Your task to perform on an android device: uninstall "Yahoo Mail" Image 0: 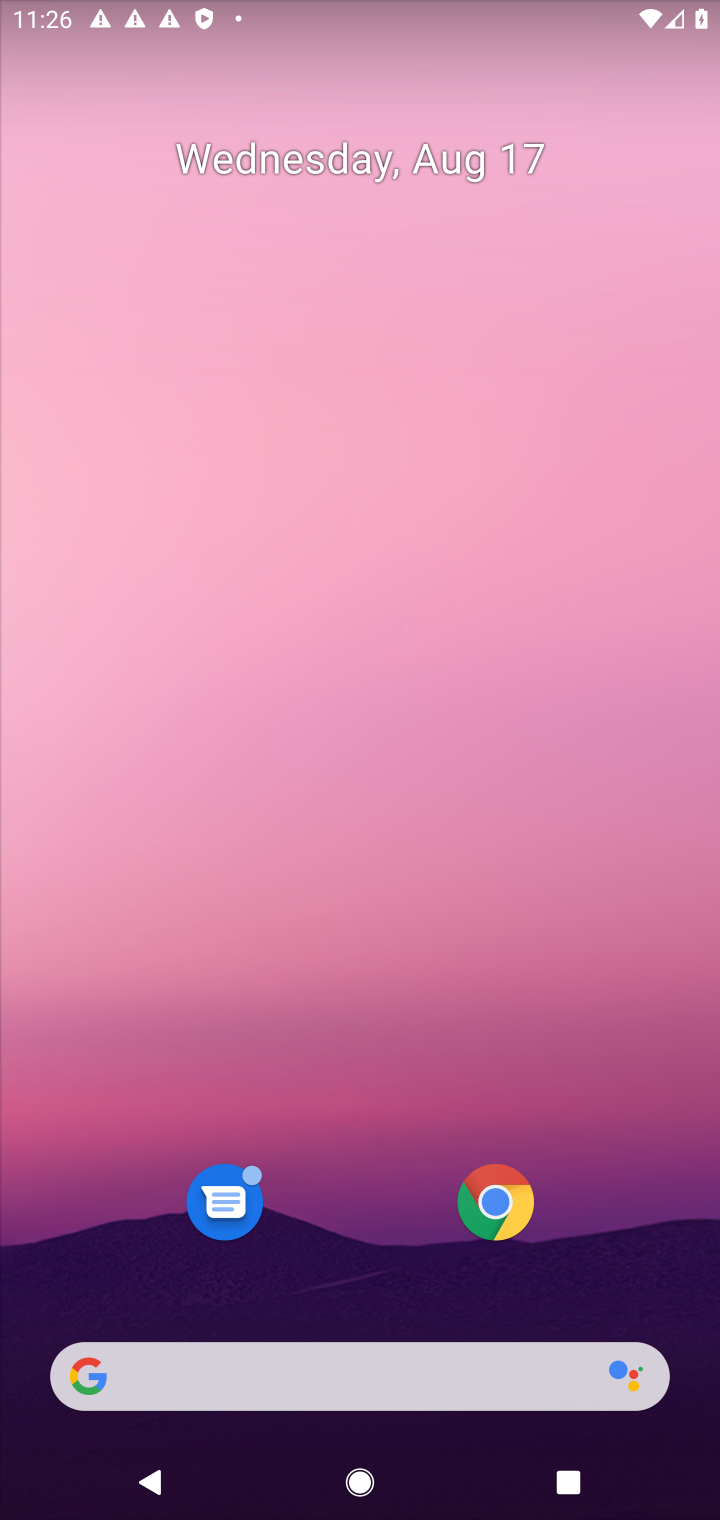
Step 0: drag from (387, 1176) to (321, 391)
Your task to perform on an android device: uninstall "Yahoo Mail" Image 1: 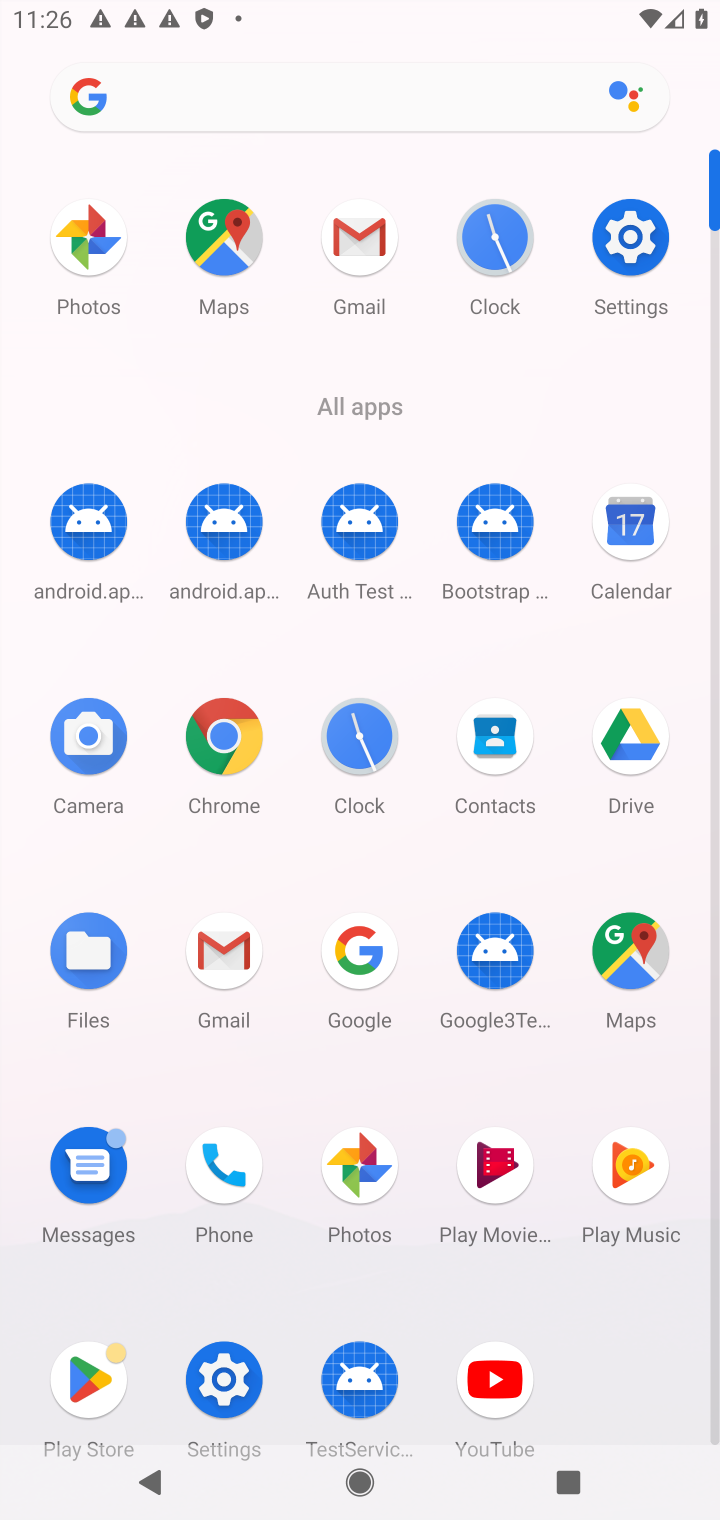
Step 1: click (75, 1353)
Your task to perform on an android device: uninstall "Yahoo Mail" Image 2: 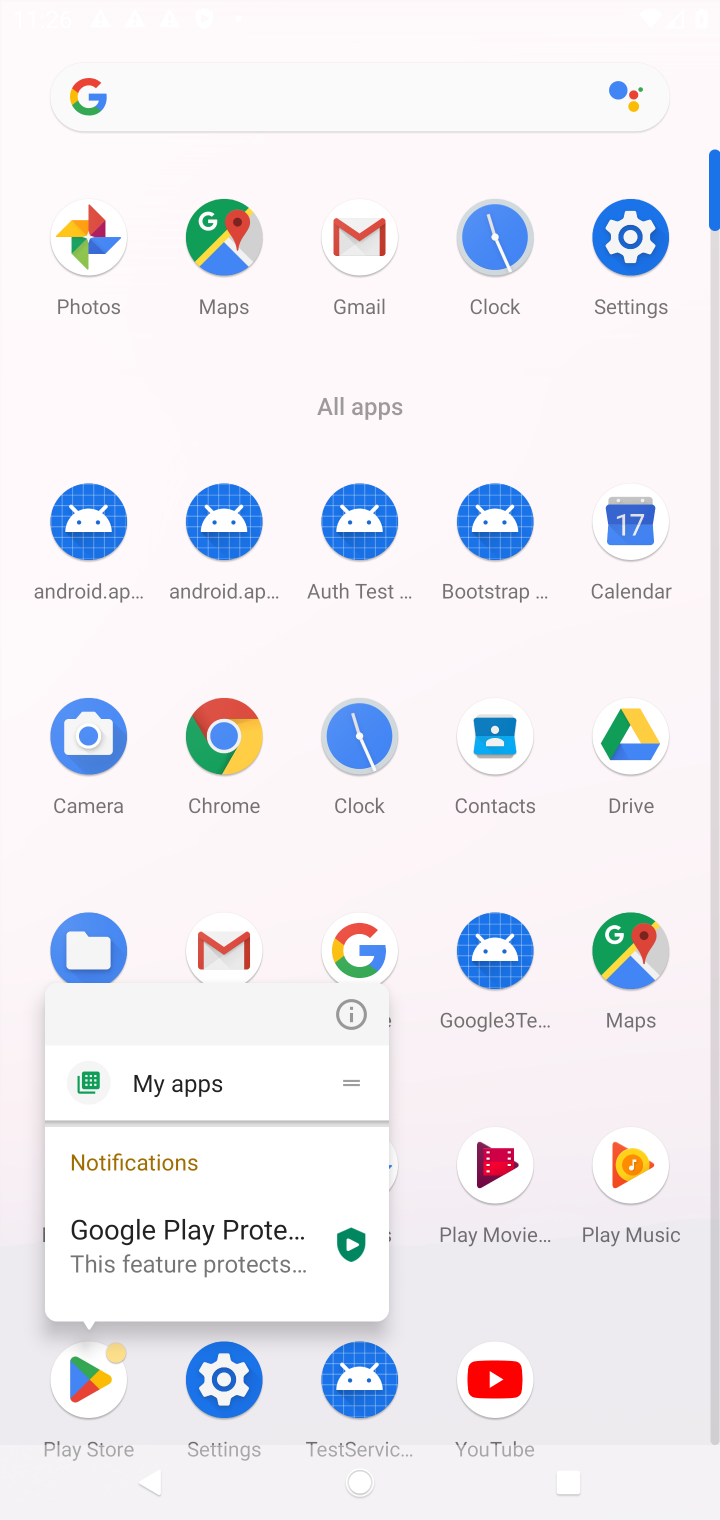
Step 2: click (79, 1394)
Your task to perform on an android device: uninstall "Yahoo Mail" Image 3: 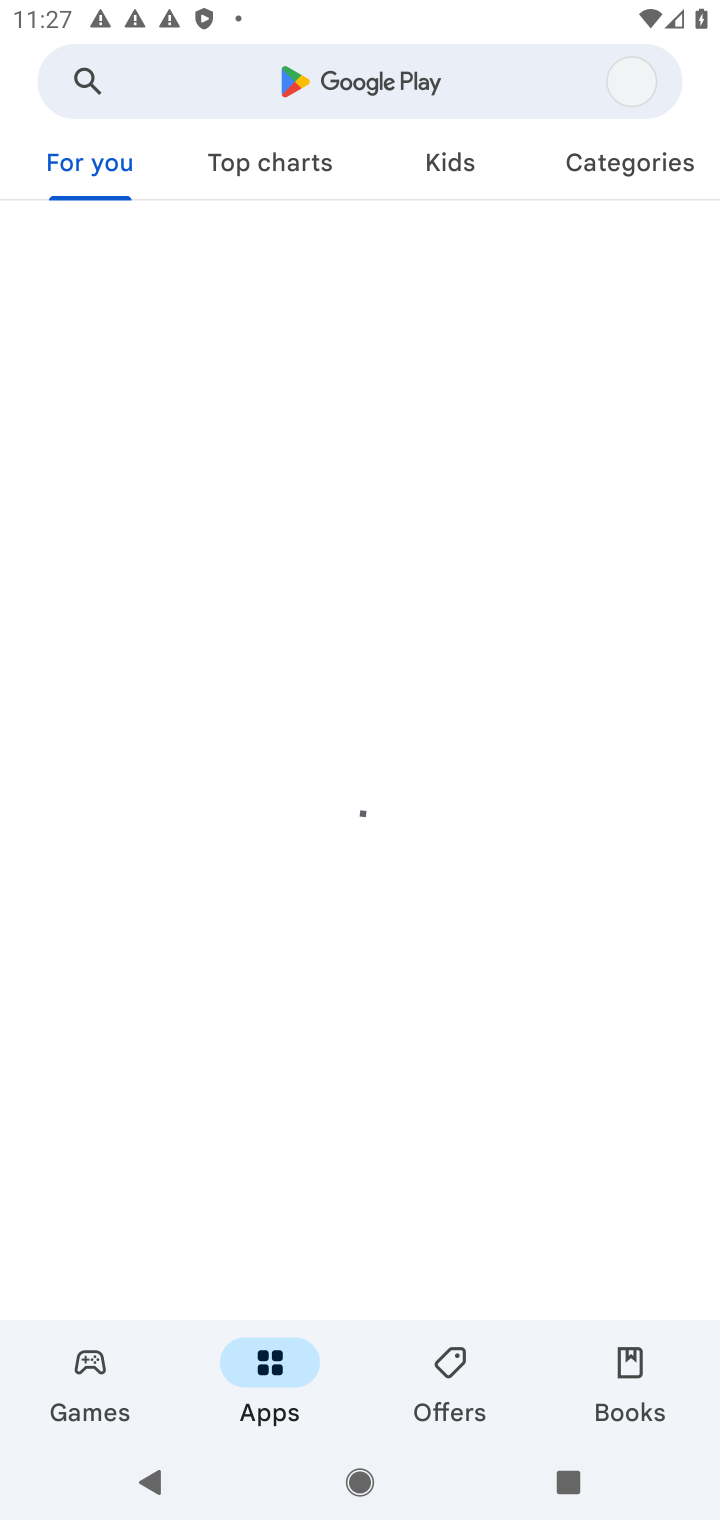
Step 3: click (490, 91)
Your task to perform on an android device: uninstall "Yahoo Mail" Image 4: 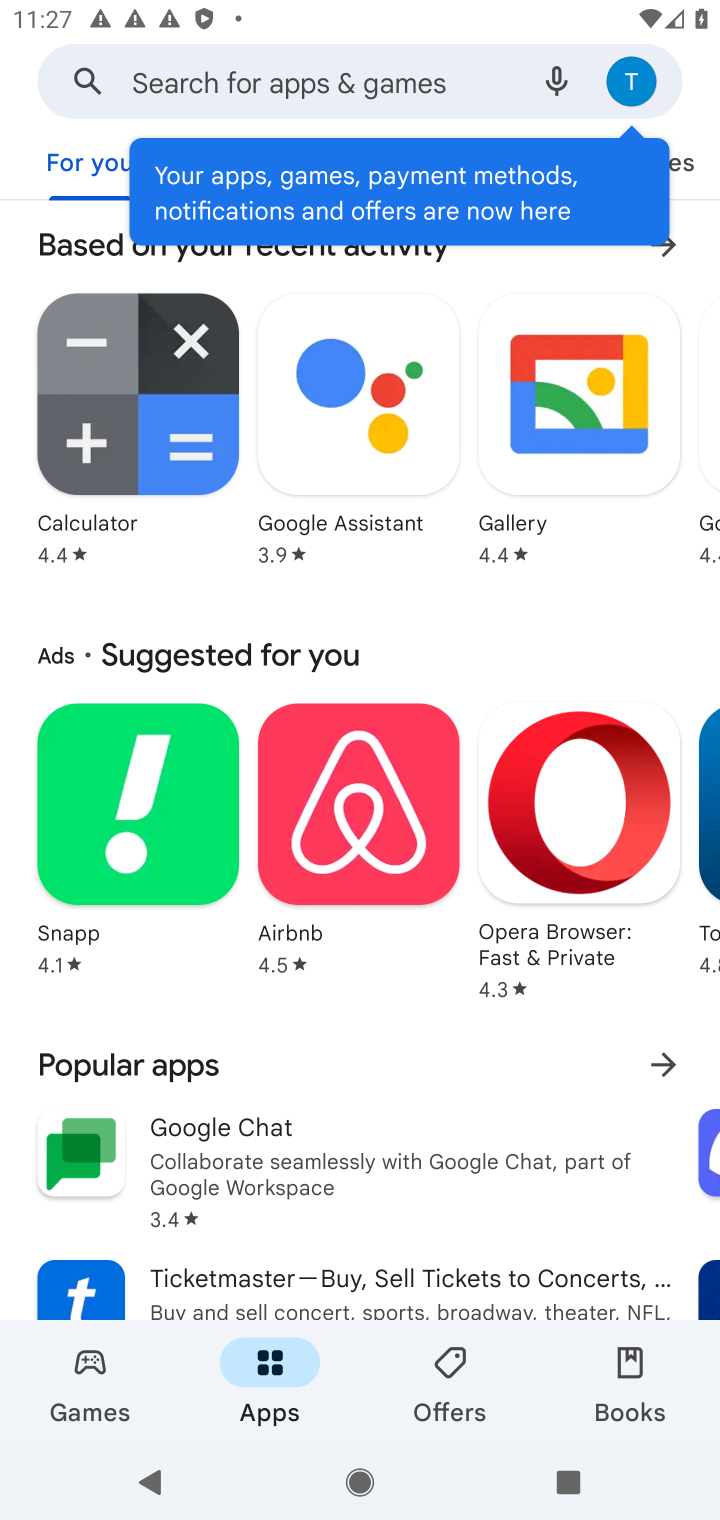
Step 4: click (333, 113)
Your task to perform on an android device: uninstall "Yahoo Mail" Image 5: 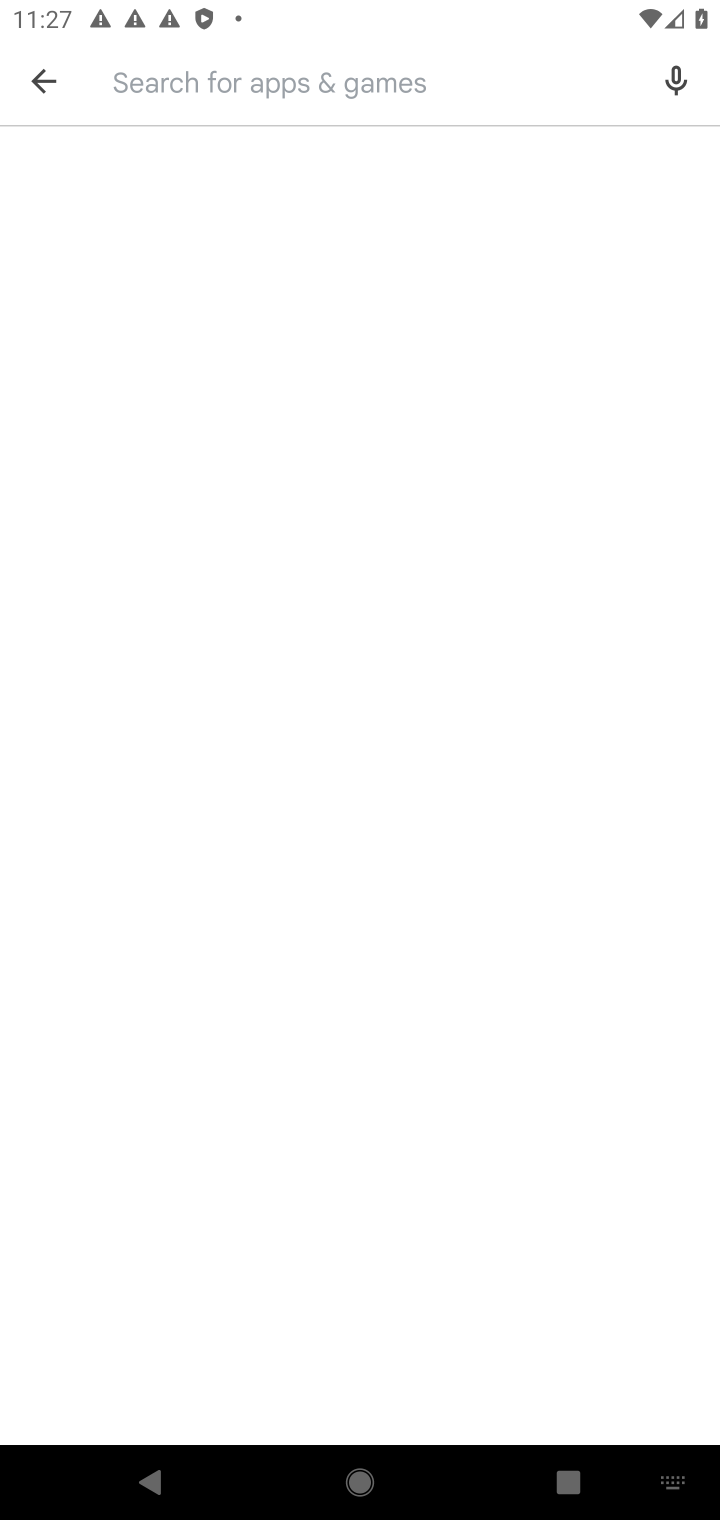
Step 5: type "Yahoo Mail"
Your task to perform on an android device: uninstall "Yahoo Mail" Image 6: 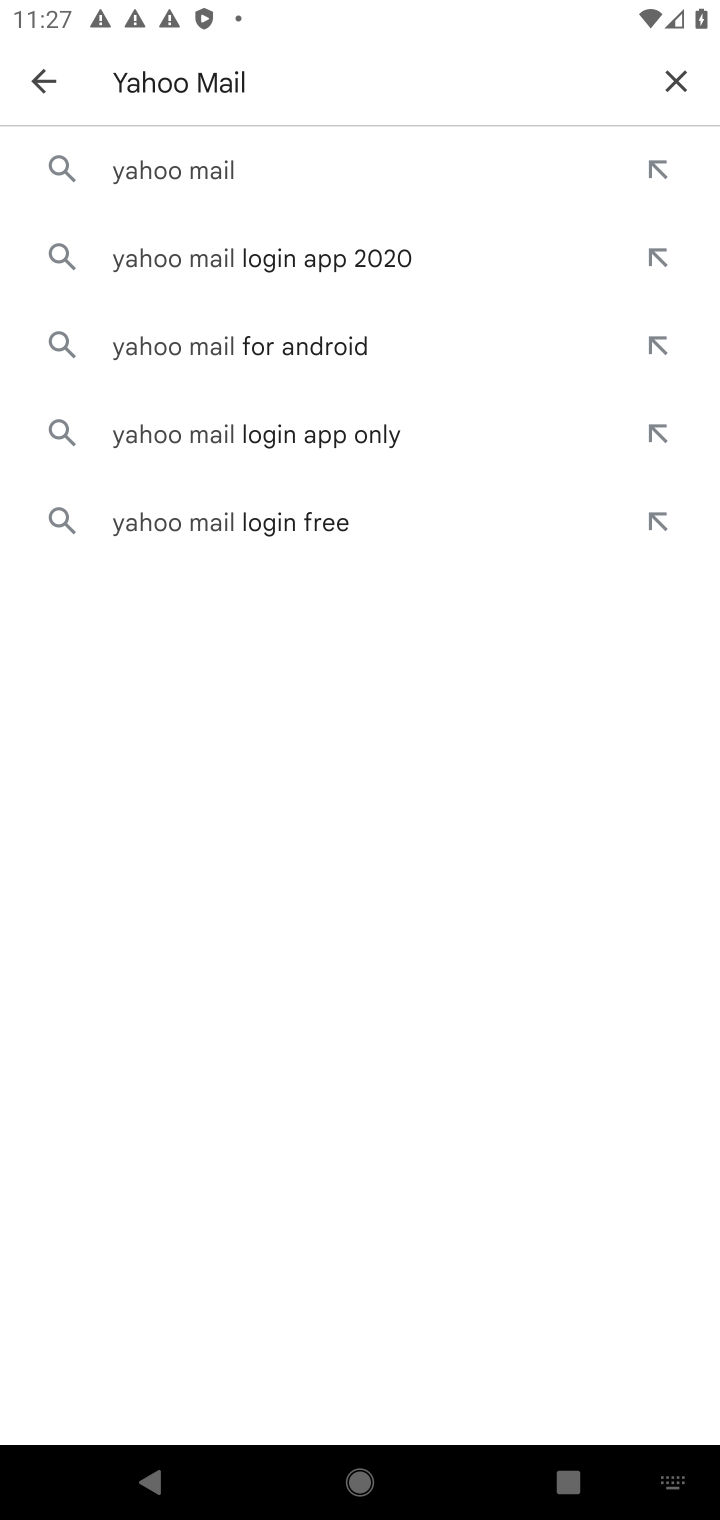
Step 6: click (245, 186)
Your task to perform on an android device: uninstall "Yahoo Mail" Image 7: 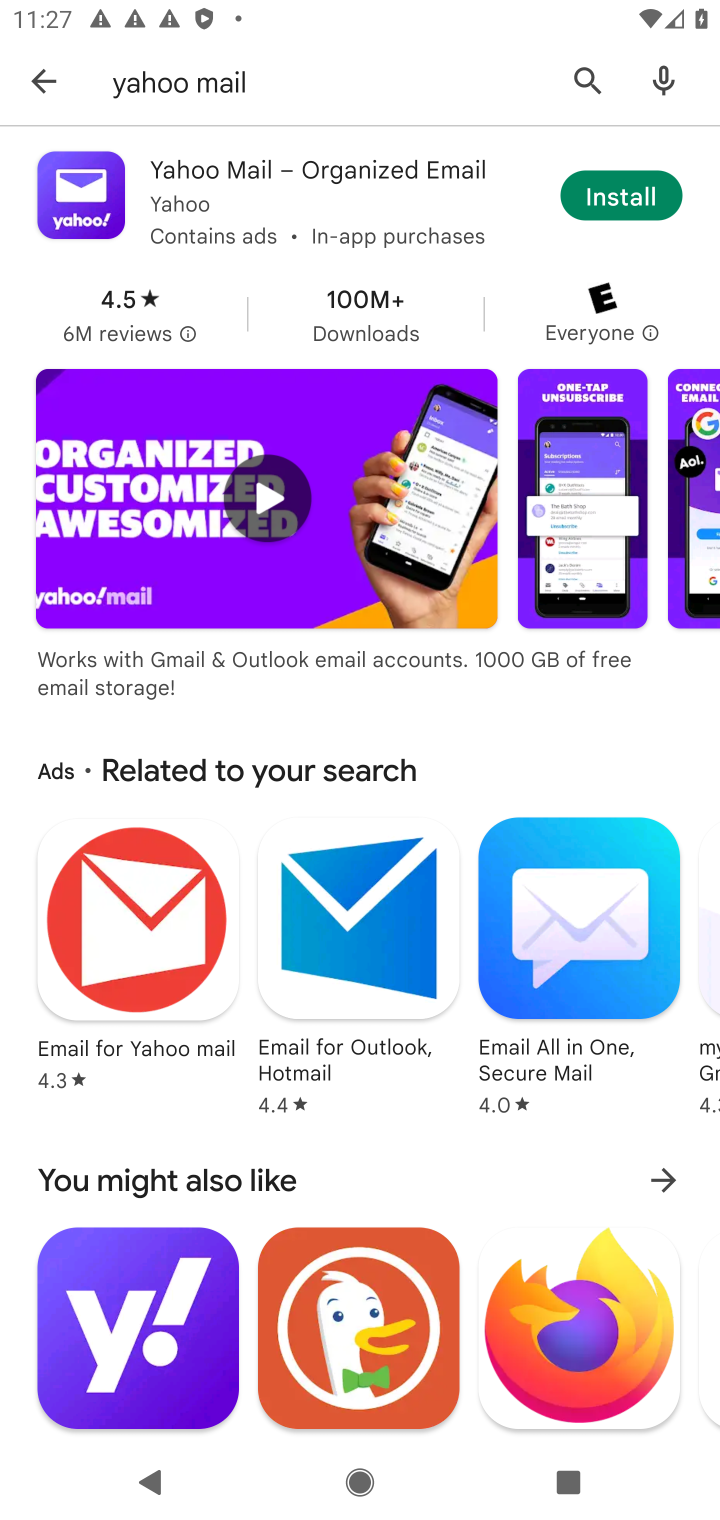
Step 7: task complete